Your task to perform on an android device: What's the weather today? Image 0: 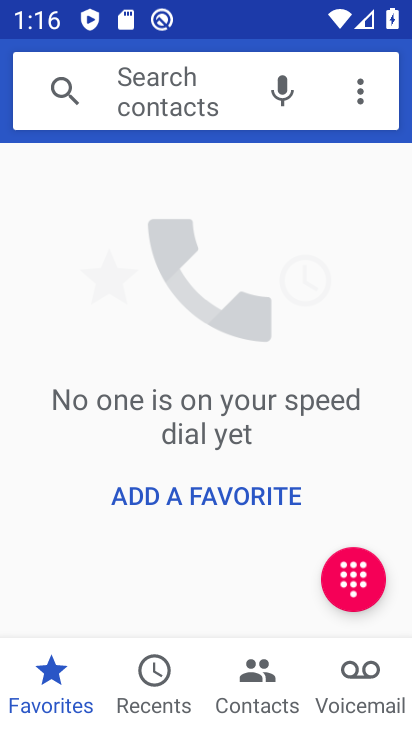
Step 0: press home button
Your task to perform on an android device: What's the weather today? Image 1: 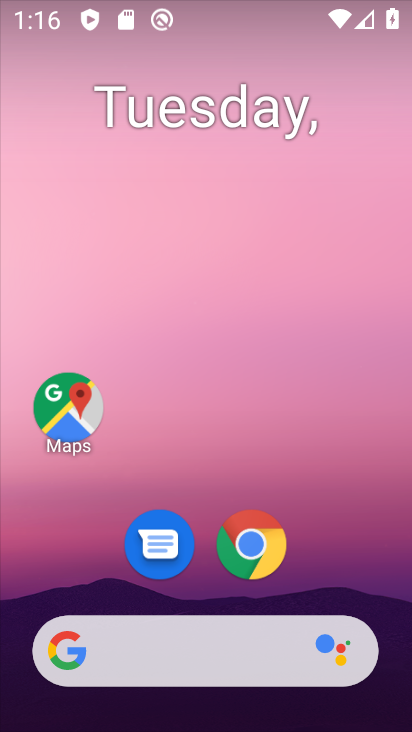
Step 1: click (212, 654)
Your task to perform on an android device: What's the weather today? Image 2: 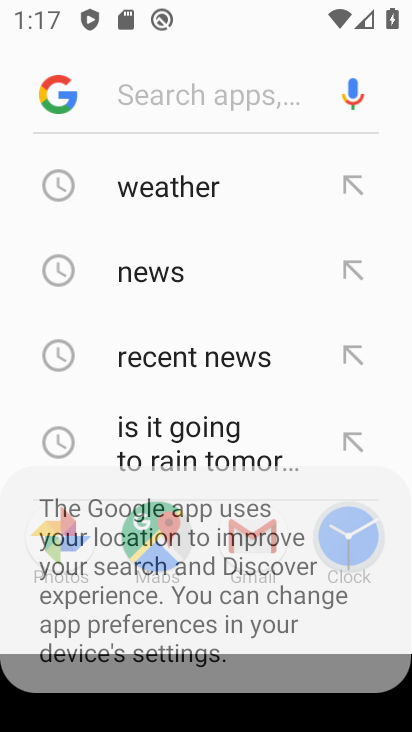
Step 2: click (196, 191)
Your task to perform on an android device: What's the weather today? Image 3: 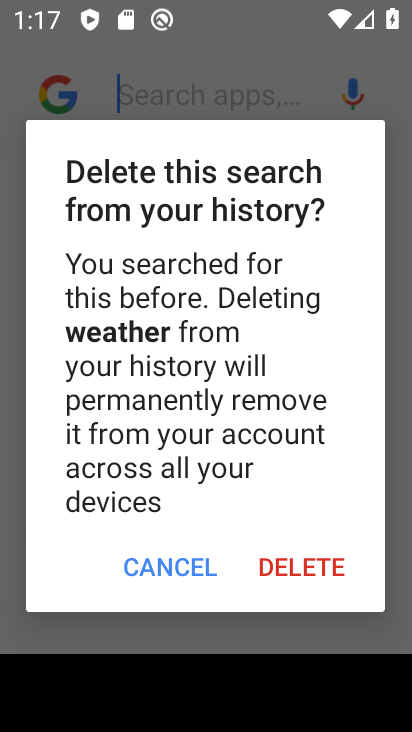
Step 3: click (185, 582)
Your task to perform on an android device: What's the weather today? Image 4: 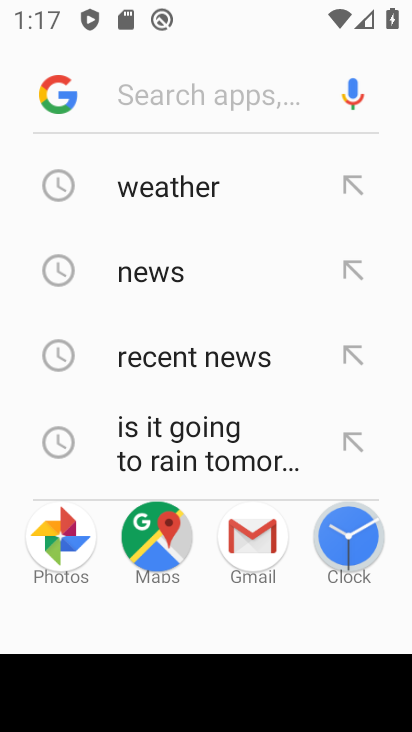
Step 4: click (211, 184)
Your task to perform on an android device: What's the weather today? Image 5: 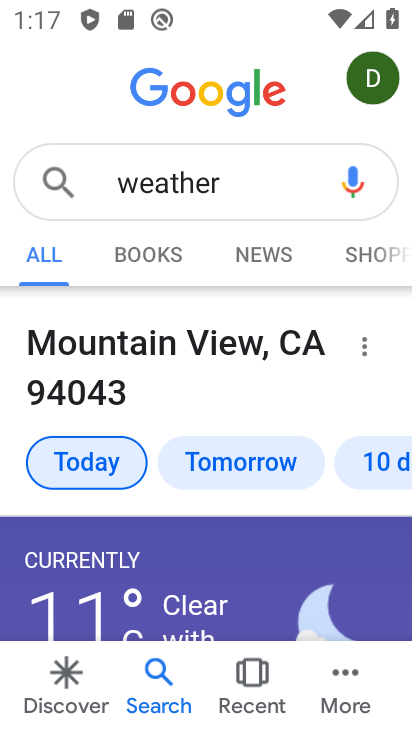
Step 5: task complete